Your task to perform on an android device: Search for flights from NYC to London Image 0: 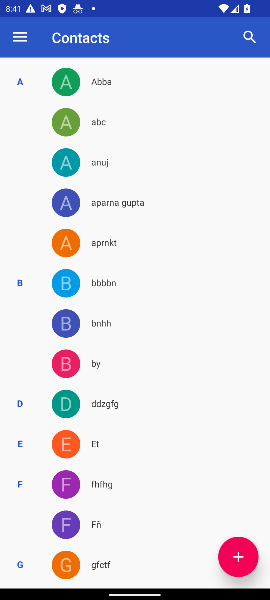
Step 0: press home button
Your task to perform on an android device: Search for flights from NYC to London Image 1: 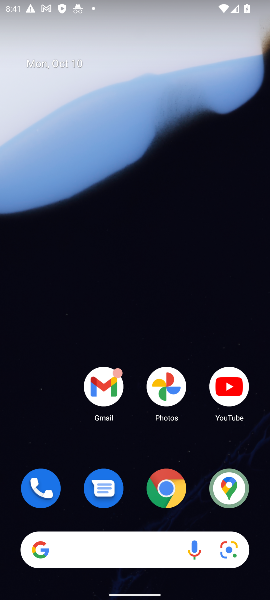
Step 1: drag from (133, 519) to (158, 102)
Your task to perform on an android device: Search for flights from NYC to London Image 2: 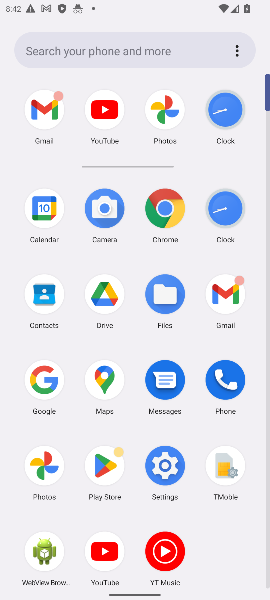
Step 2: click (164, 211)
Your task to perform on an android device: Search for flights from NYC to London Image 3: 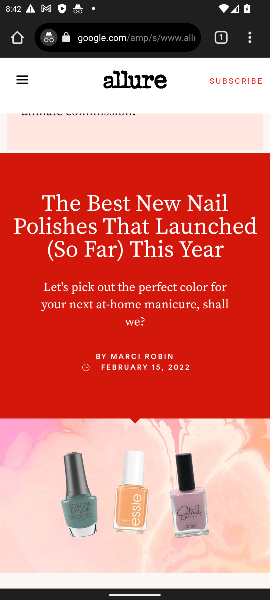
Step 3: click (157, 37)
Your task to perform on an android device: Search for flights from NYC to London Image 4: 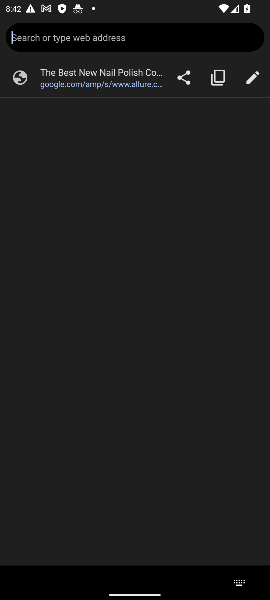
Step 4: type "flights from NYC to London"
Your task to perform on an android device: Search for flights from NYC to London Image 5: 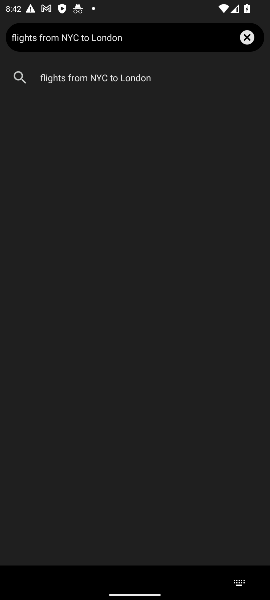
Step 5: press enter
Your task to perform on an android device: Search for flights from NYC to London Image 6: 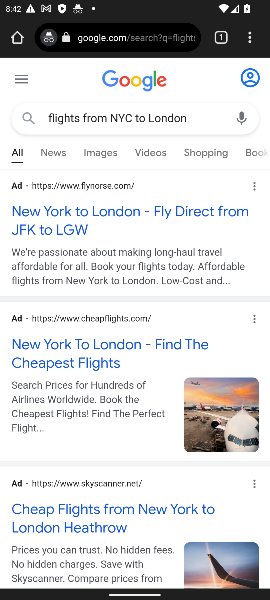
Step 6: task complete